Your task to perform on an android device: Go to Wikipedia Image 0: 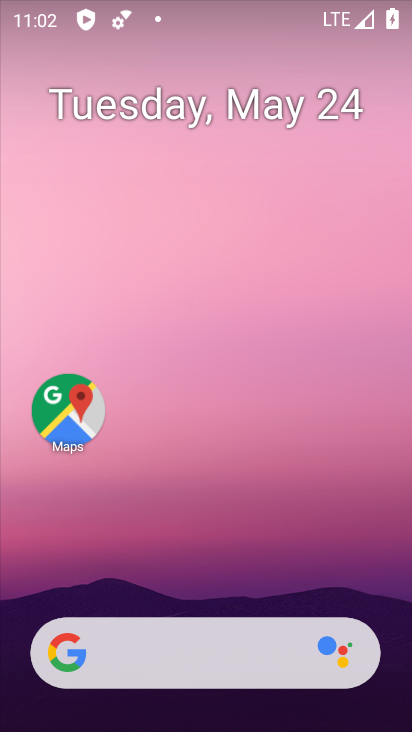
Step 0: drag from (219, 641) to (198, 107)
Your task to perform on an android device: Go to Wikipedia Image 1: 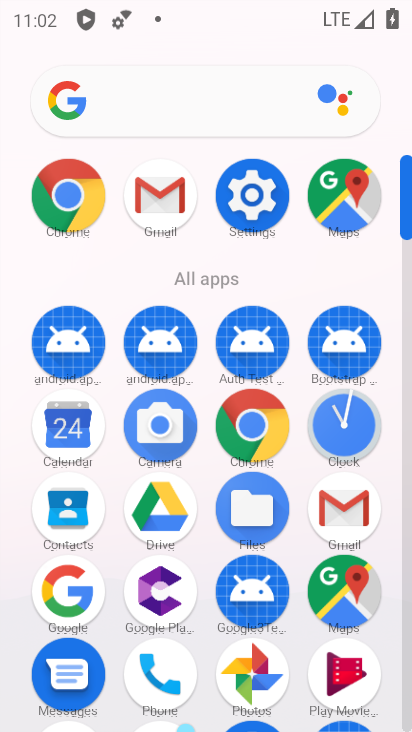
Step 1: click (79, 206)
Your task to perform on an android device: Go to Wikipedia Image 2: 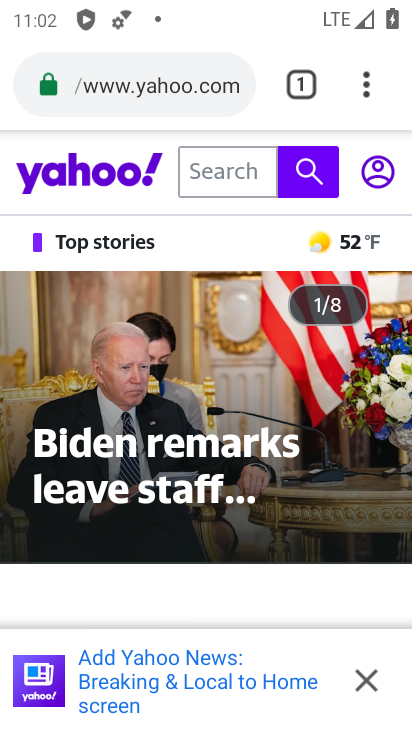
Step 2: click (149, 91)
Your task to perform on an android device: Go to Wikipedia Image 3: 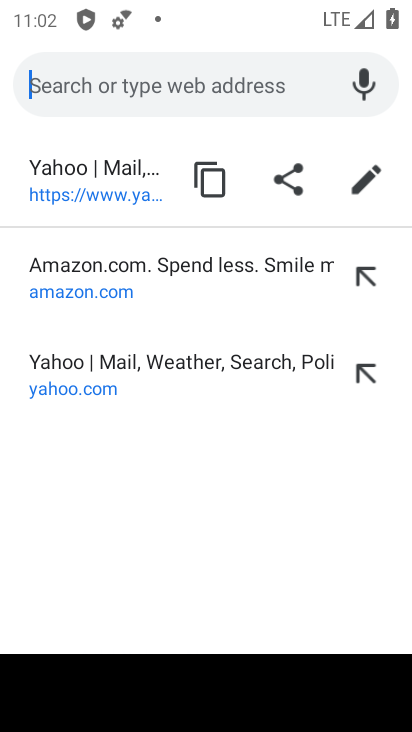
Step 3: type "wikipedia"
Your task to perform on an android device: Go to Wikipedia Image 4: 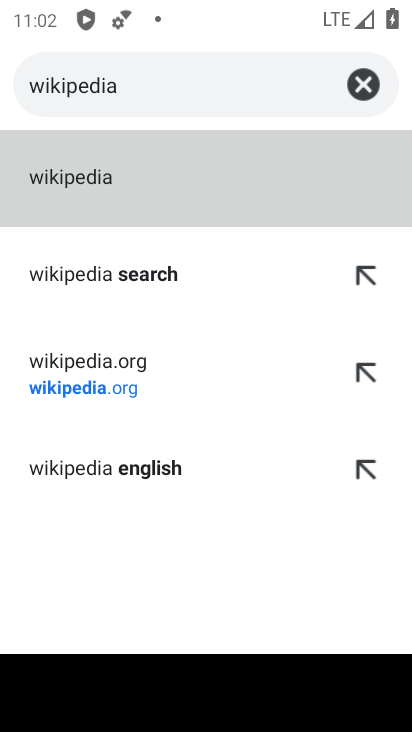
Step 4: click (119, 405)
Your task to perform on an android device: Go to Wikipedia Image 5: 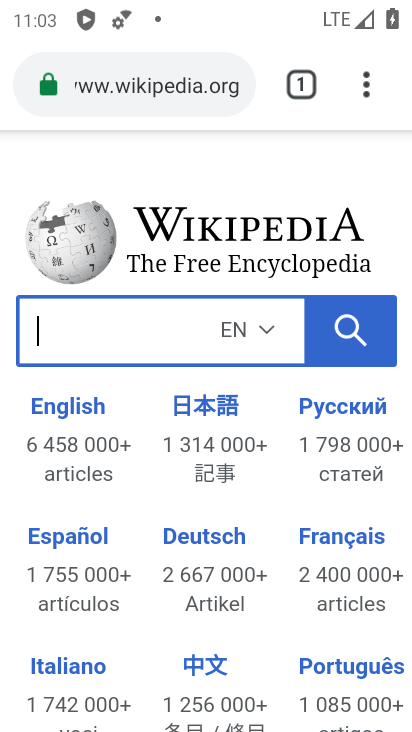
Step 5: task complete